Your task to perform on an android device: toggle notification dots Image 0: 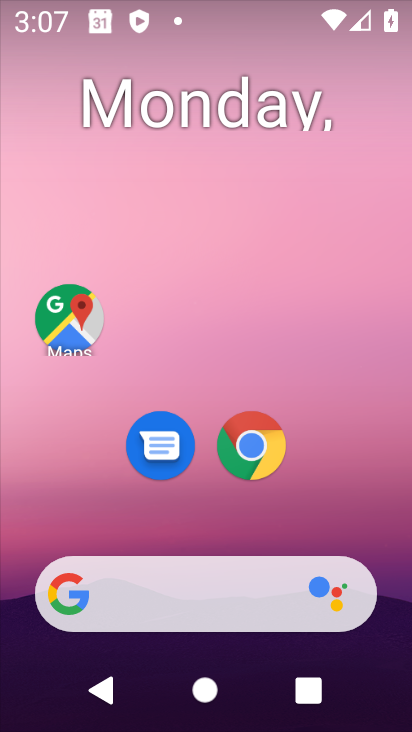
Step 0: drag from (314, 529) to (268, 92)
Your task to perform on an android device: toggle notification dots Image 1: 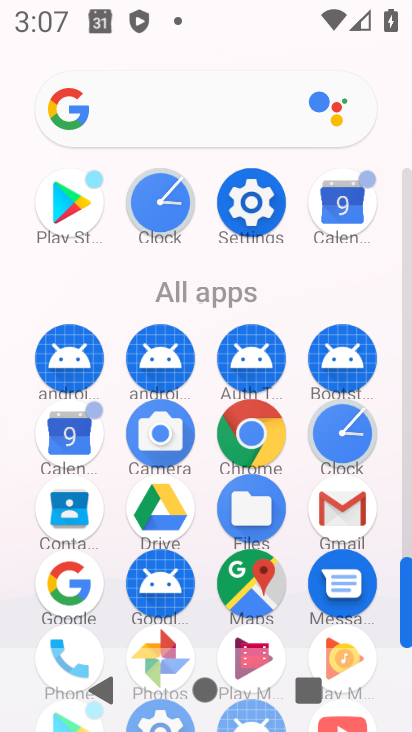
Step 1: click (248, 212)
Your task to perform on an android device: toggle notification dots Image 2: 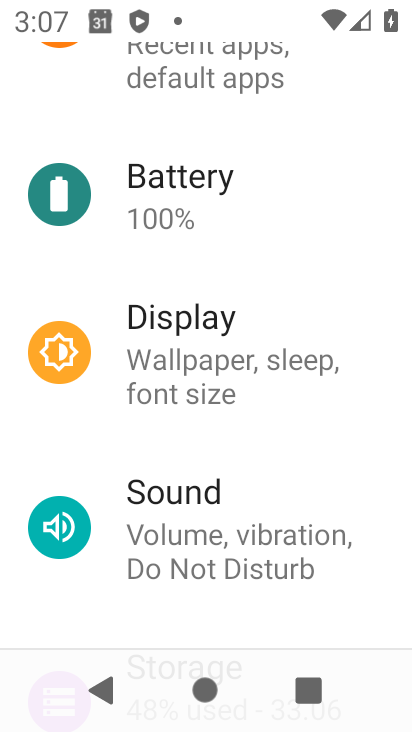
Step 2: drag from (207, 340) to (270, 456)
Your task to perform on an android device: toggle notification dots Image 3: 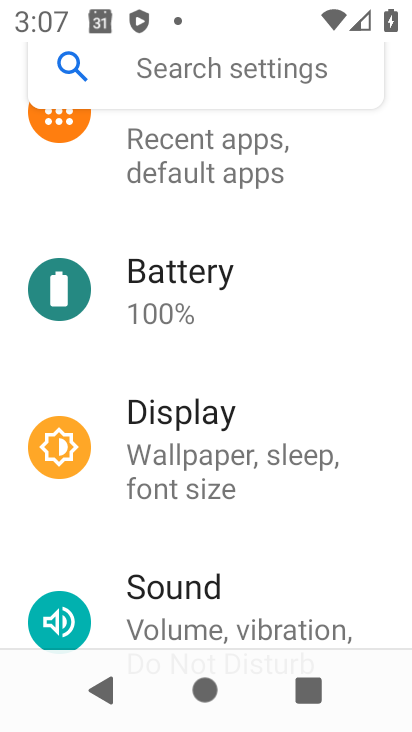
Step 3: drag from (238, 353) to (310, 514)
Your task to perform on an android device: toggle notification dots Image 4: 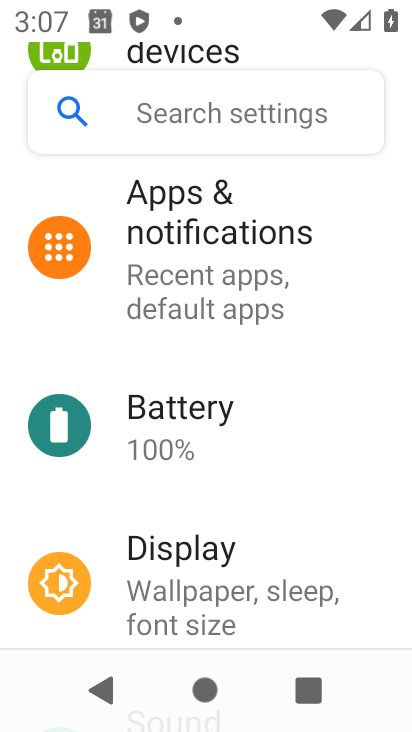
Step 4: click (241, 300)
Your task to perform on an android device: toggle notification dots Image 5: 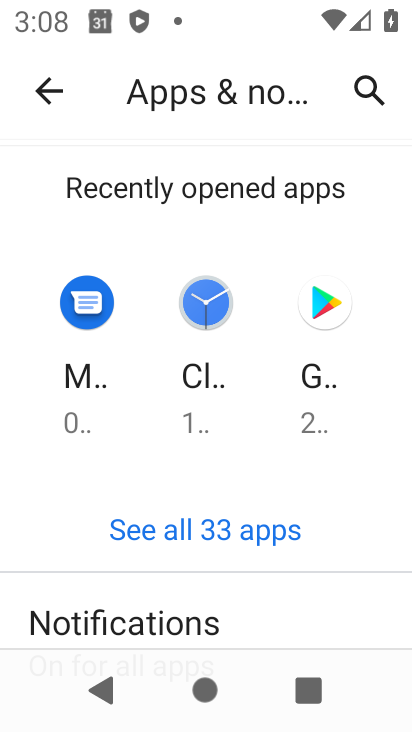
Step 5: drag from (191, 612) to (135, 391)
Your task to perform on an android device: toggle notification dots Image 6: 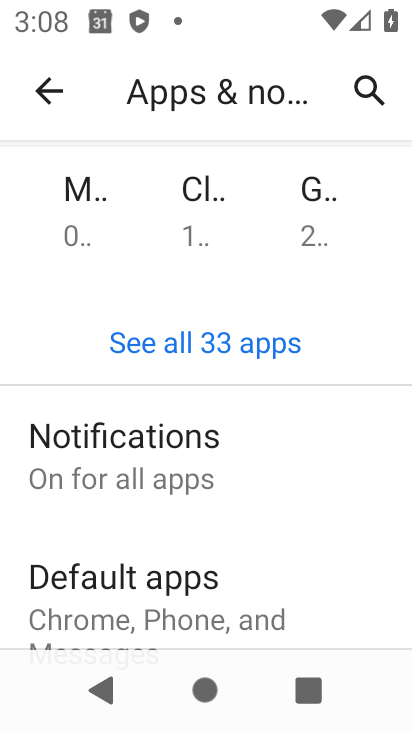
Step 6: click (98, 465)
Your task to perform on an android device: toggle notification dots Image 7: 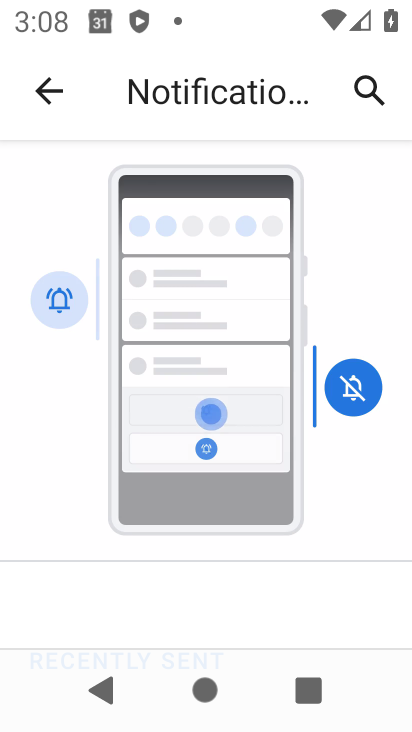
Step 7: drag from (141, 628) to (104, 287)
Your task to perform on an android device: toggle notification dots Image 8: 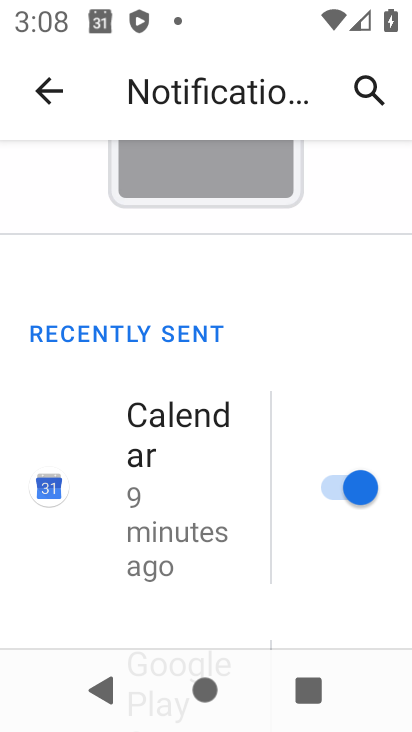
Step 8: drag from (166, 588) to (160, 330)
Your task to perform on an android device: toggle notification dots Image 9: 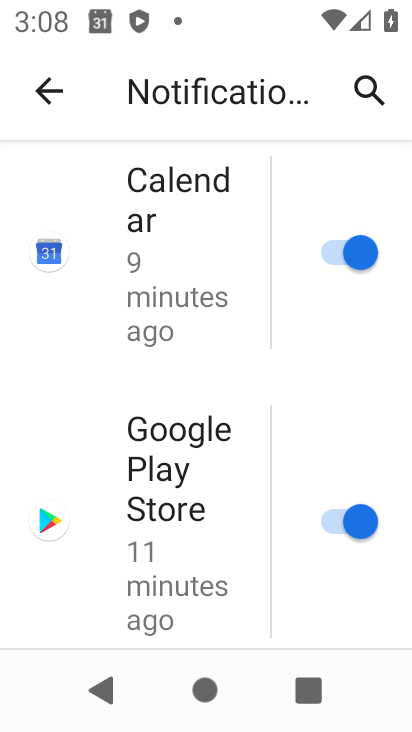
Step 9: drag from (215, 576) to (188, 386)
Your task to perform on an android device: toggle notification dots Image 10: 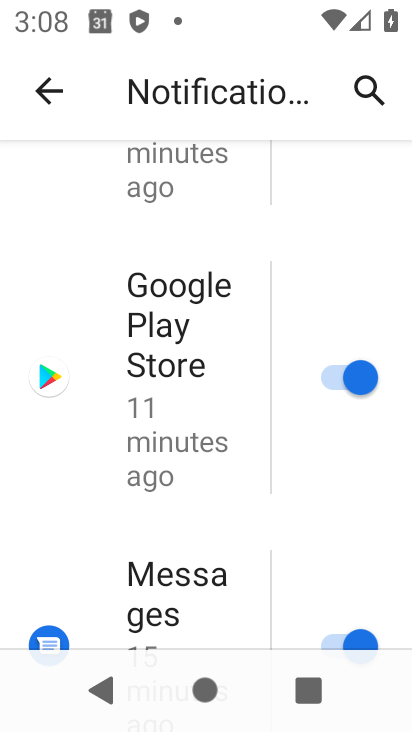
Step 10: drag from (220, 597) to (191, 399)
Your task to perform on an android device: toggle notification dots Image 11: 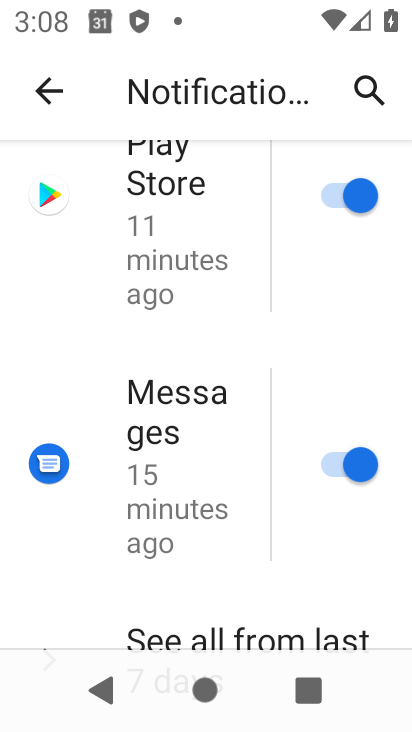
Step 11: drag from (190, 630) to (161, 400)
Your task to perform on an android device: toggle notification dots Image 12: 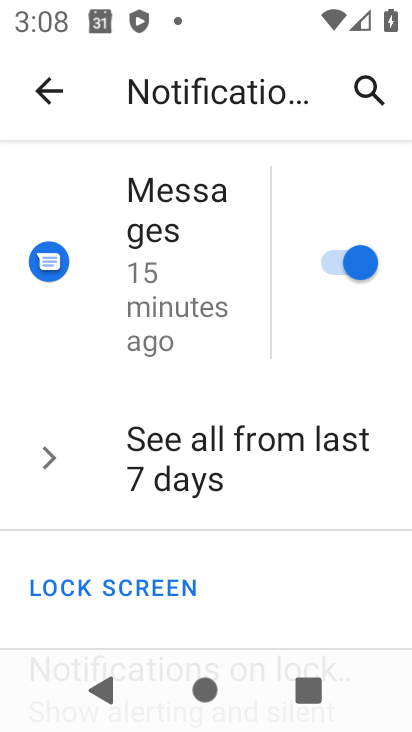
Step 12: drag from (175, 602) to (167, 376)
Your task to perform on an android device: toggle notification dots Image 13: 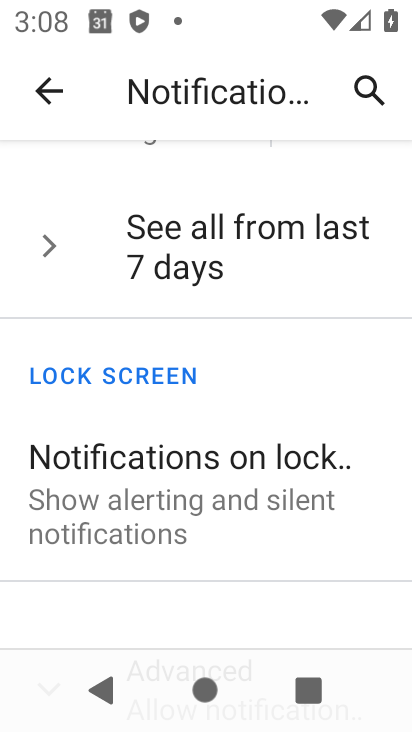
Step 13: drag from (215, 585) to (185, 408)
Your task to perform on an android device: toggle notification dots Image 14: 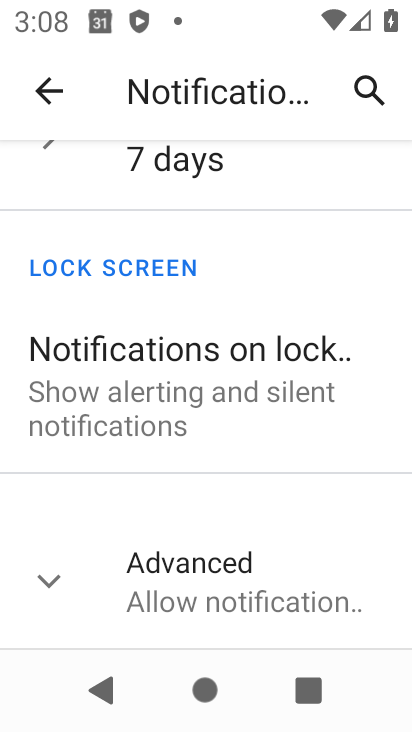
Step 14: click (239, 594)
Your task to perform on an android device: toggle notification dots Image 15: 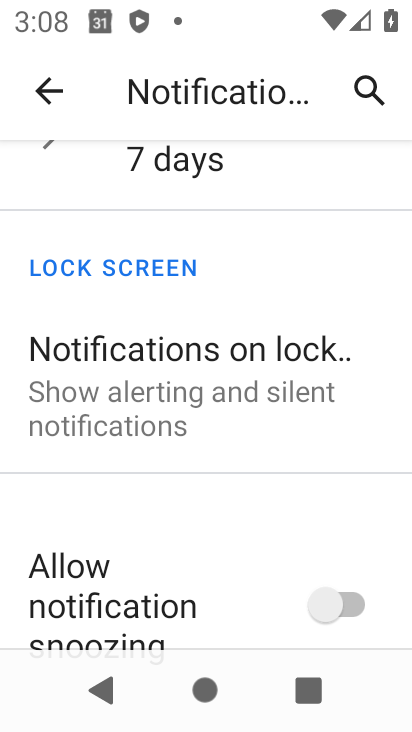
Step 15: drag from (239, 631) to (224, 405)
Your task to perform on an android device: toggle notification dots Image 16: 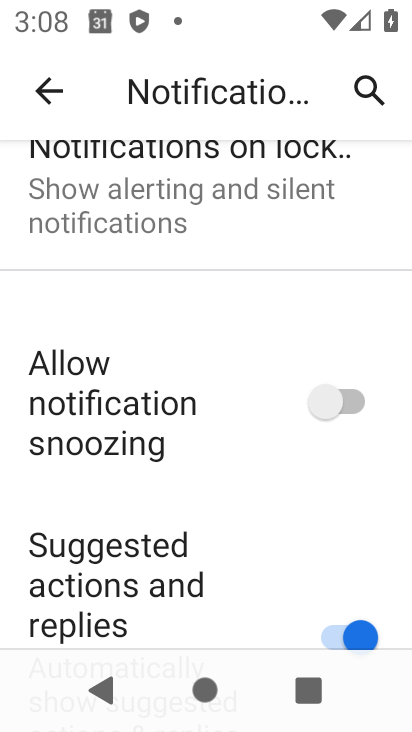
Step 16: drag from (190, 591) to (184, 392)
Your task to perform on an android device: toggle notification dots Image 17: 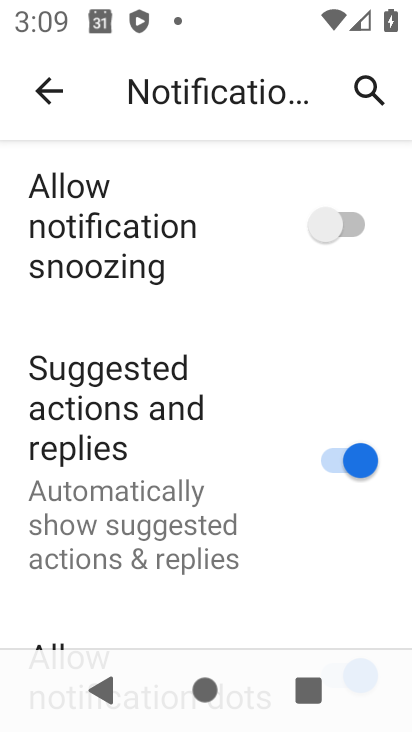
Step 17: drag from (178, 566) to (171, 391)
Your task to perform on an android device: toggle notification dots Image 18: 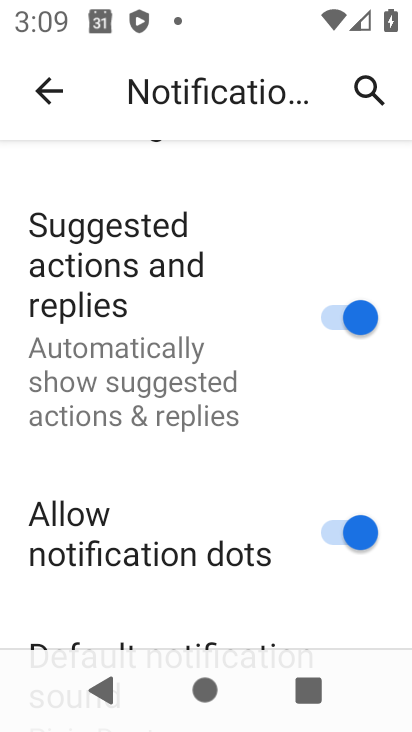
Step 18: click (337, 544)
Your task to perform on an android device: toggle notification dots Image 19: 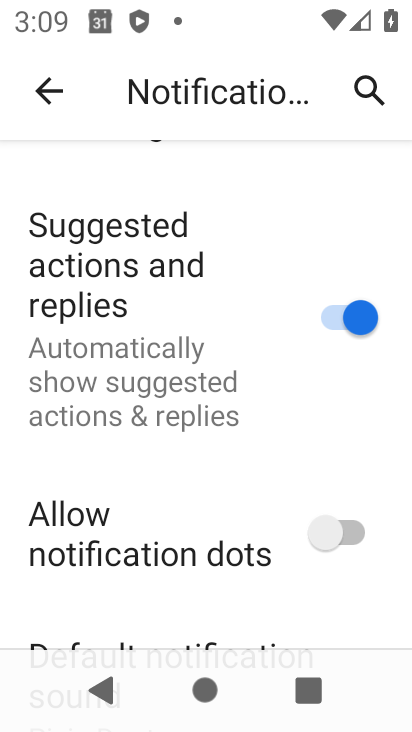
Step 19: task complete